Your task to perform on an android device: turn off data saver in the chrome app Image 0: 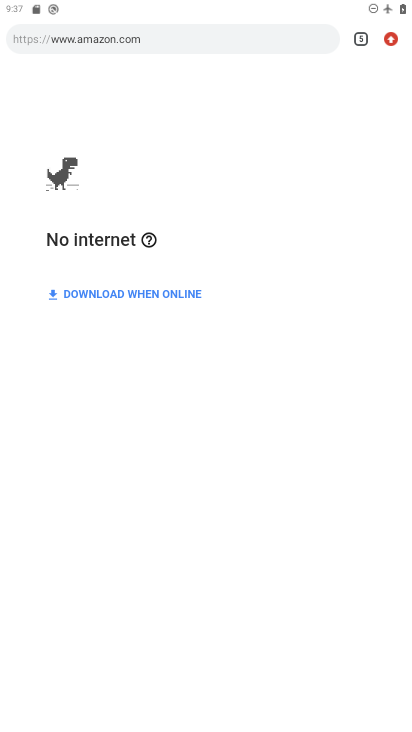
Step 0: press home button
Your task to perform on an android device: turn off data saver in the chrome app Image 1: 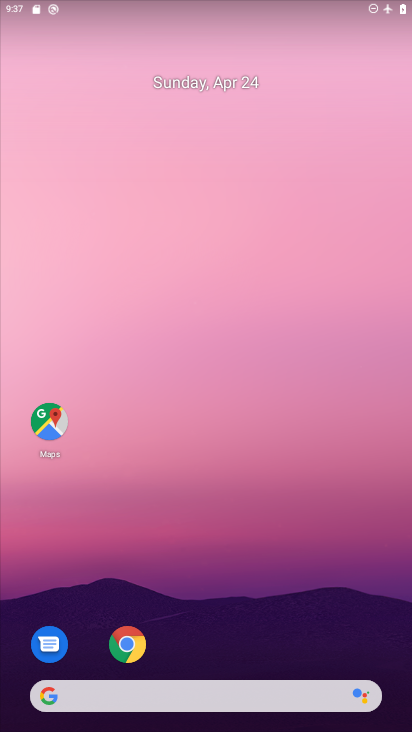
Step 1: drag from (220, 674) to (359, 728)
Your task to perform on an android device: turn off data saver in the chrome app Image 2: 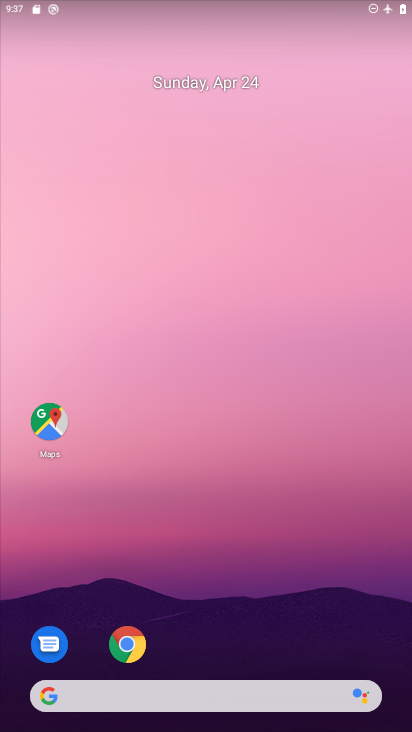
Step 2: click (140, 638)
Your task to perform on an android device: turn off data saver in the chrome app Image 3: 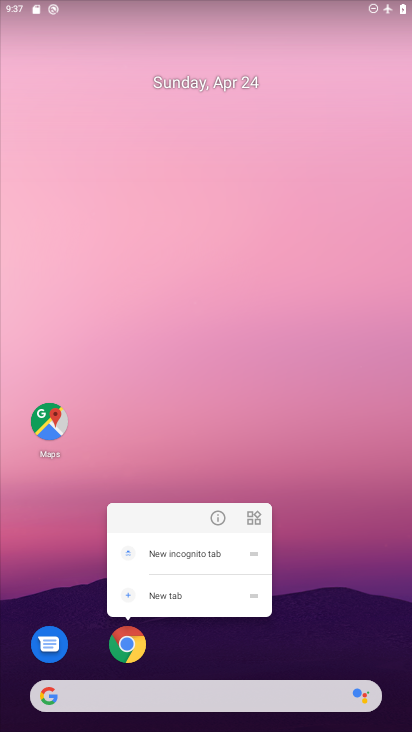
Step 3: click (123, 641)
Your task to perform on an android device: turn off data saver in the chrome app Image 4: 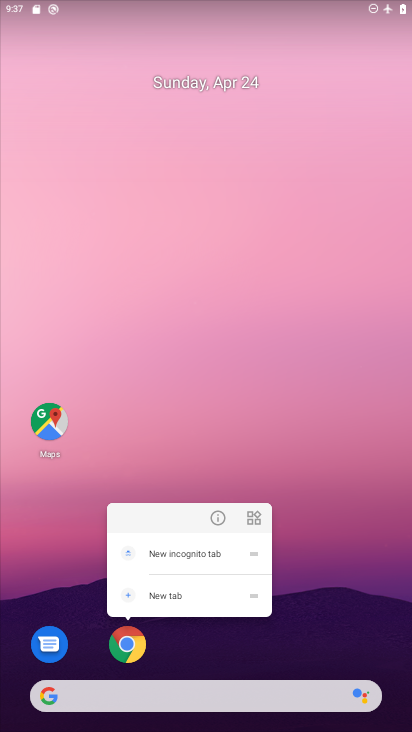
Step 4: click (112, 641)
Your task to perform on an android device: turn off data saver in the chrome app Image 5: 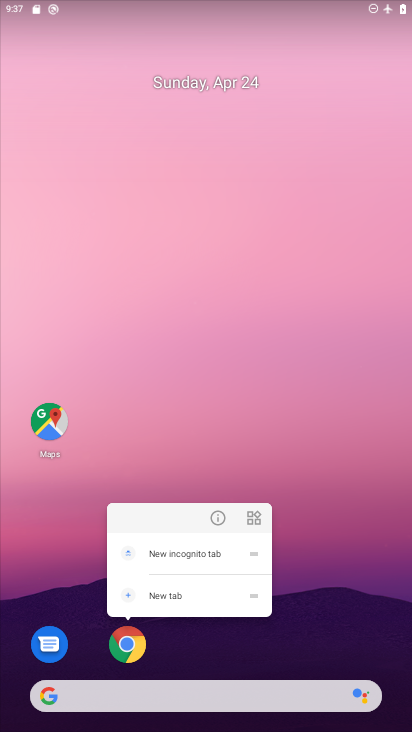
Step 5: click (124, 640)
Your task to perform on an android device: turn off data saver in the chrome app Image 6: 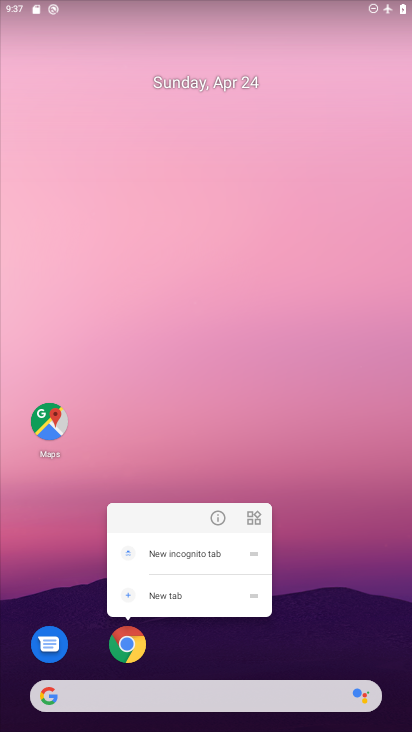
Step 6: click (132, 641)
Your task to perform on an android device: turn off data saver in the chrome app Image 7: 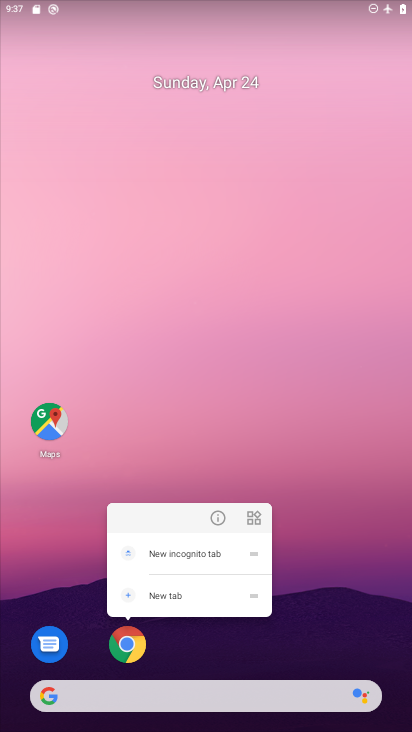
Step 7: click (132, 641)
Your task to perform on an android device: turn off data saver in the chrome app Image 8: 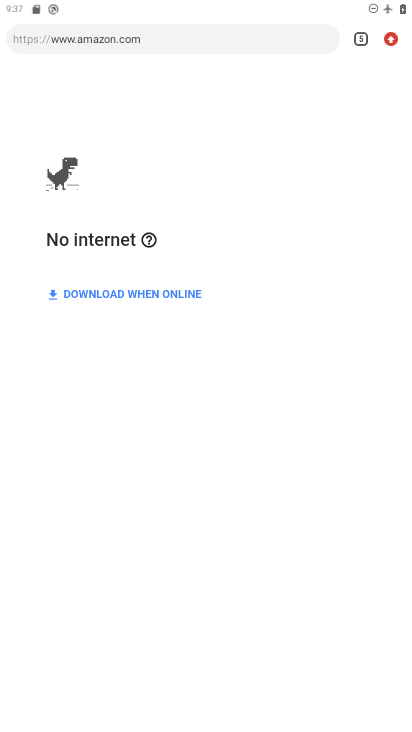
Step 8: drag from (388, 32) to (268, 470)
Your task to perform on an android device: turn off data saver in the chrome app Image 9: 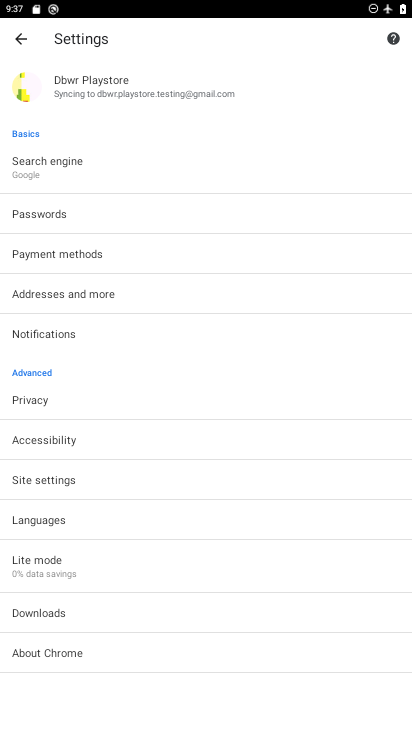
Step 9: click (42, 566)
Your task to perform on an android device: turn off data saver in the chrome app Image 10: 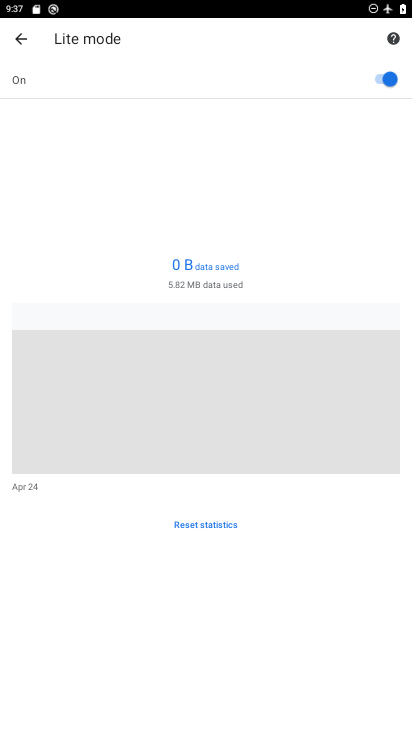
Step 10: click (369, 79)
Your task to perform on an android device: turn off data saver in the chrome app Image 11: 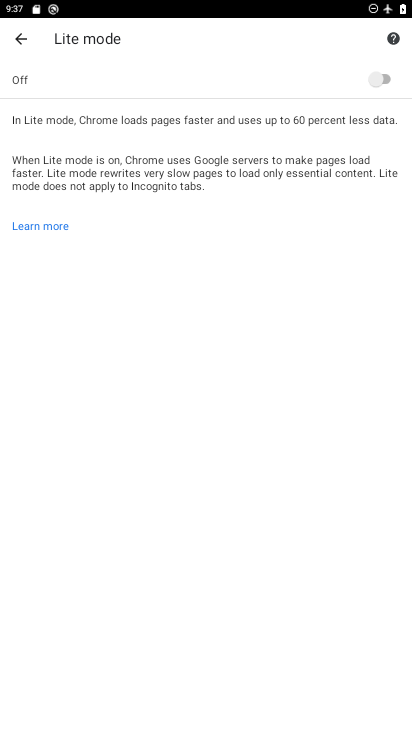
Step 11: task complete